Your task to perform on an android device: Search for razer kraken on bestbuy.com, select the first entry, and add it to the cart. Image 0: 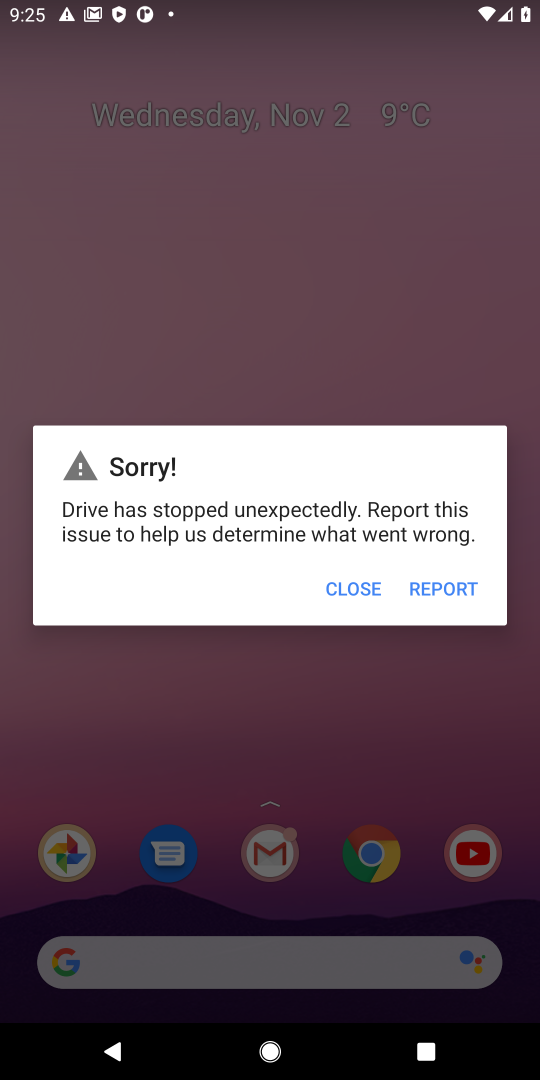
Step 0: press home button
Your task to perform on an android device: Search for razer kraken on bestbuy.com, select the first entry, and add it to the cart. Image 1: 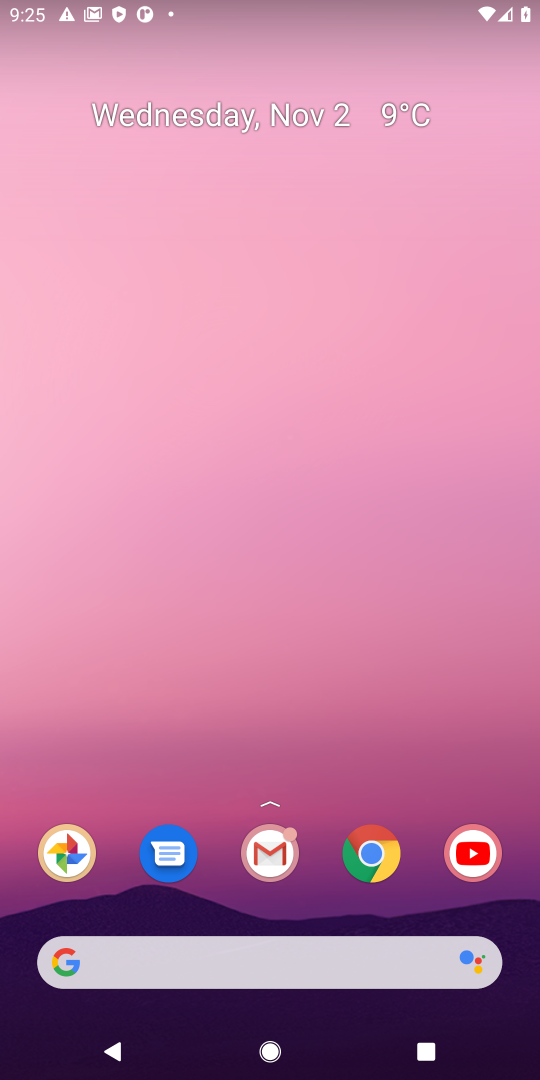
Step 1: click (366, 848)
Your task to perform on an android device: Search for razer kraken on bestbuy.com, select the first entry, and add it to the cart. Image 2: 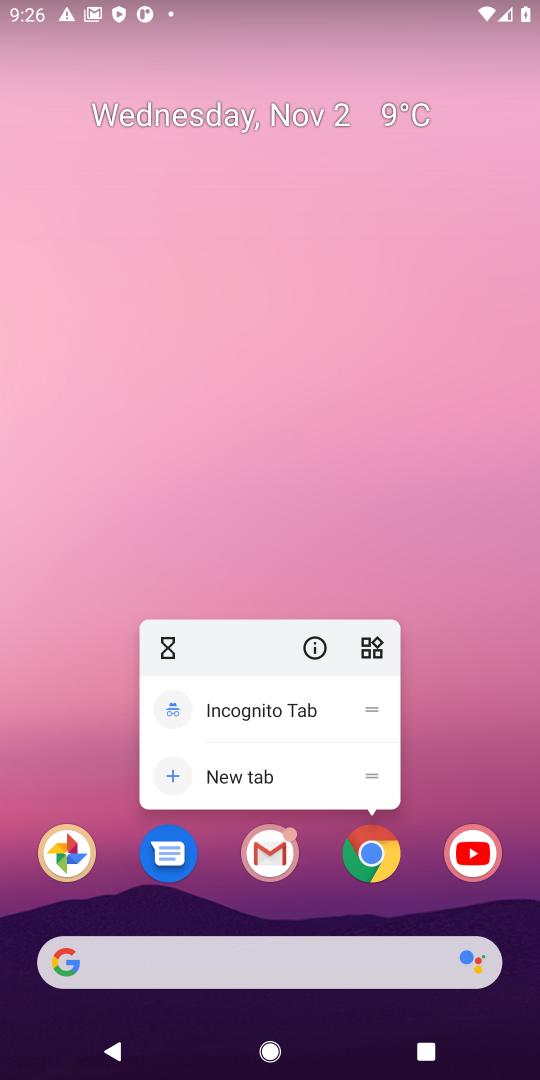
Step 2: click (369, 856)
Your task to perform on an android device: Search for razer kraken on bestbuy.com, select the first entry, and add it to the cart. Image 3: 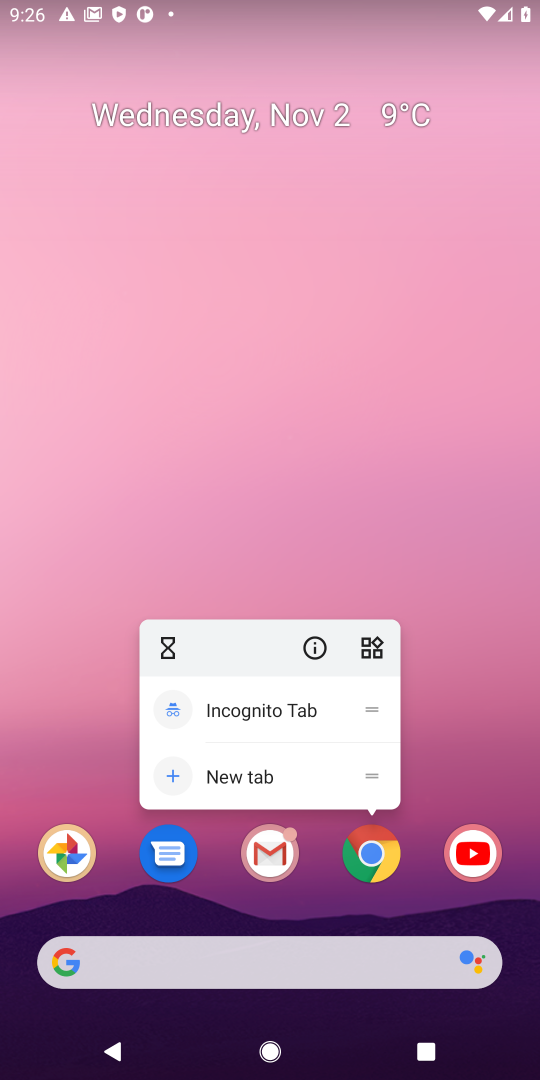
Step 3: click (375, 862)
Your task to perform on an android device: Search for razer kraken on bestbuy.com, select the first entry, and add it to the cart. Image 4: 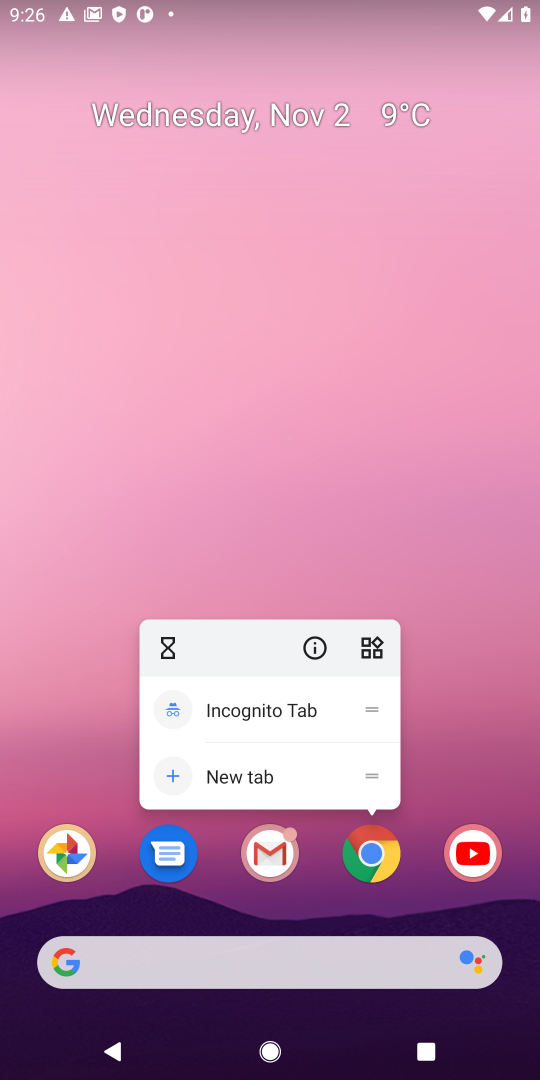
Step 4: click (375, 865)
Your task to perform on an android device: Search for razer kraken on bestbuy.com, select the first entry, and add it to the cart. Image 5: 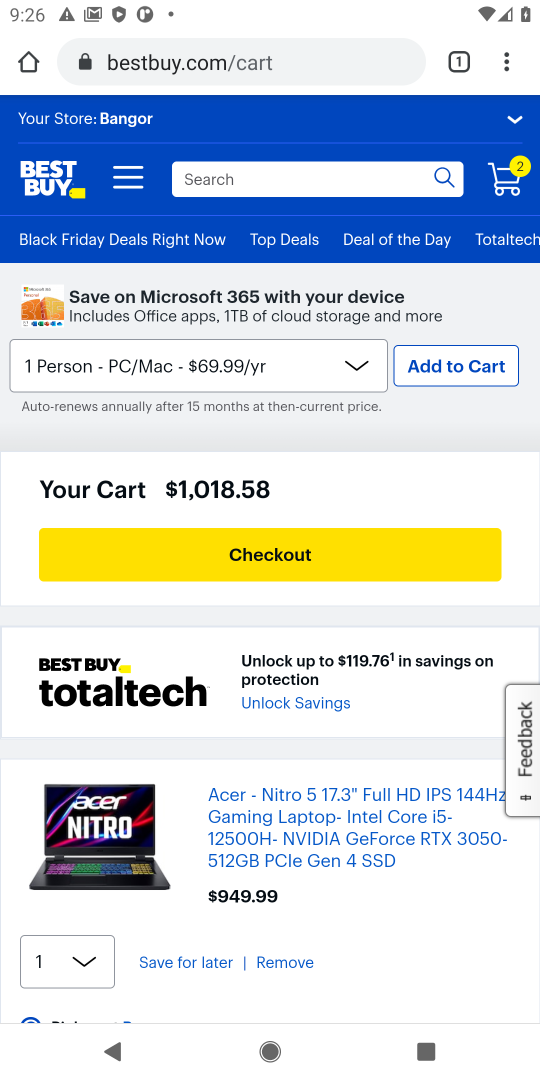
Step 5: click (289, 181)
Your task to perform on an android device: Search for razer kraken on bestbuy.com, select the first entry, and add it to the cart. Image 6: 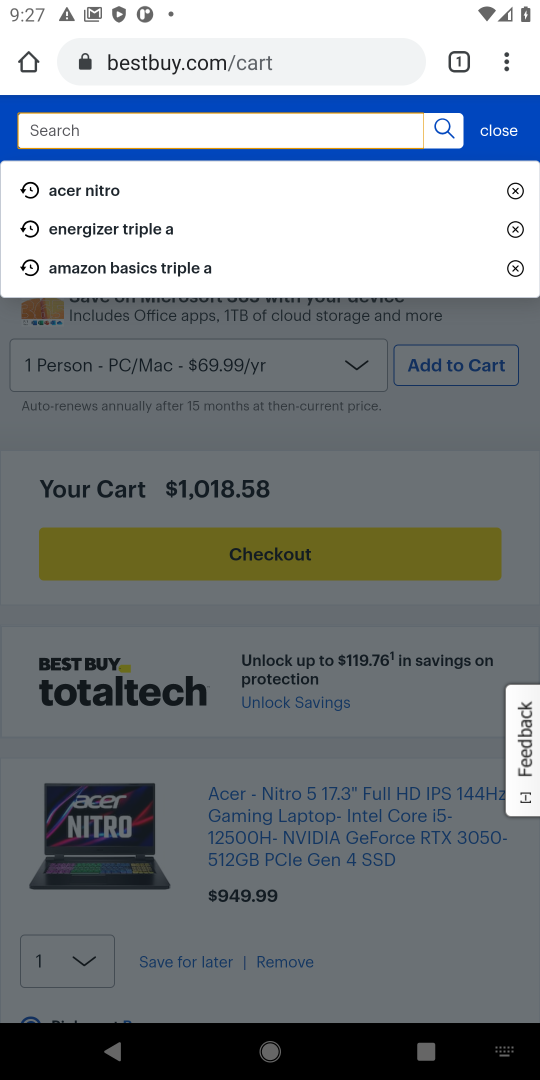
Step 6: type " razer kraken"
Your task to perform on an android device: Search for razer kraken on bestbuy.com, select the first entry, and add it to the cart. Image 7: 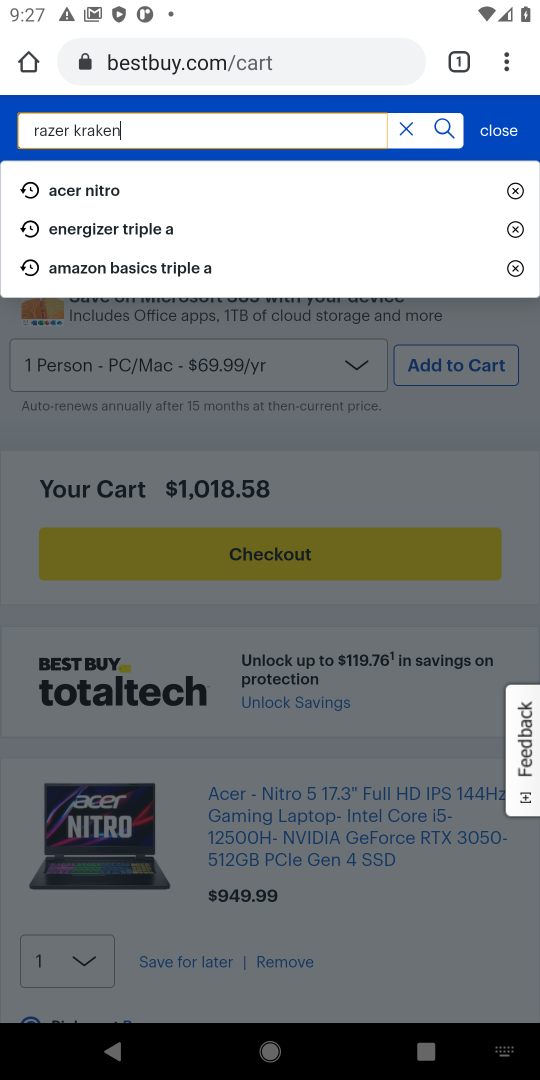
Step 7: press enter
Your task to perform on an android device: Search for razer kraken on bestbuy.com, select the first entry, and add it to the cart. Image 8: 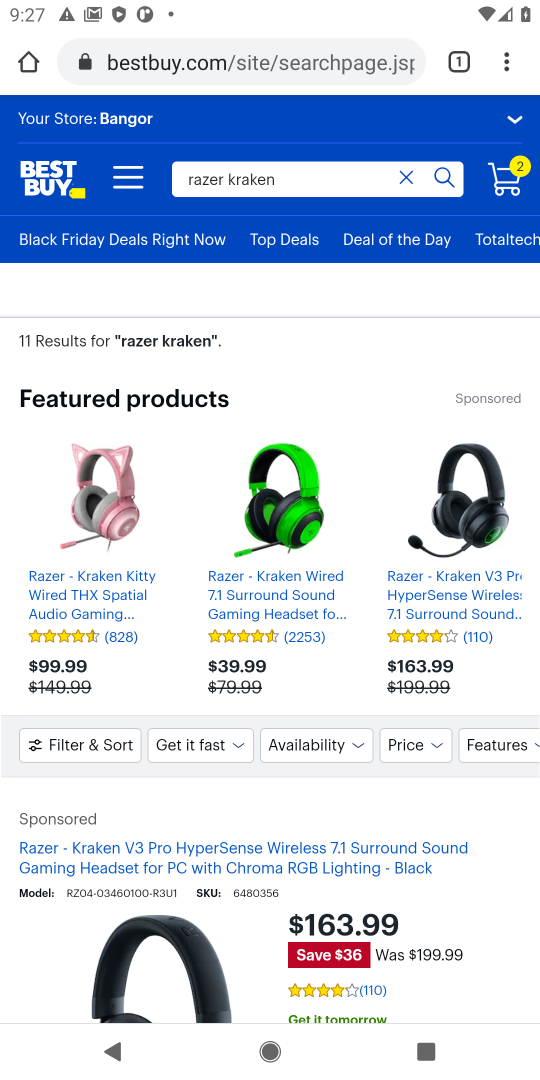
Step 8: drag from (227, 770) to (362, 395)
Your task to perform on an android device: Search for razer kraken on bestbuy.com, select the first entry, and add it to the cart. Image 9: 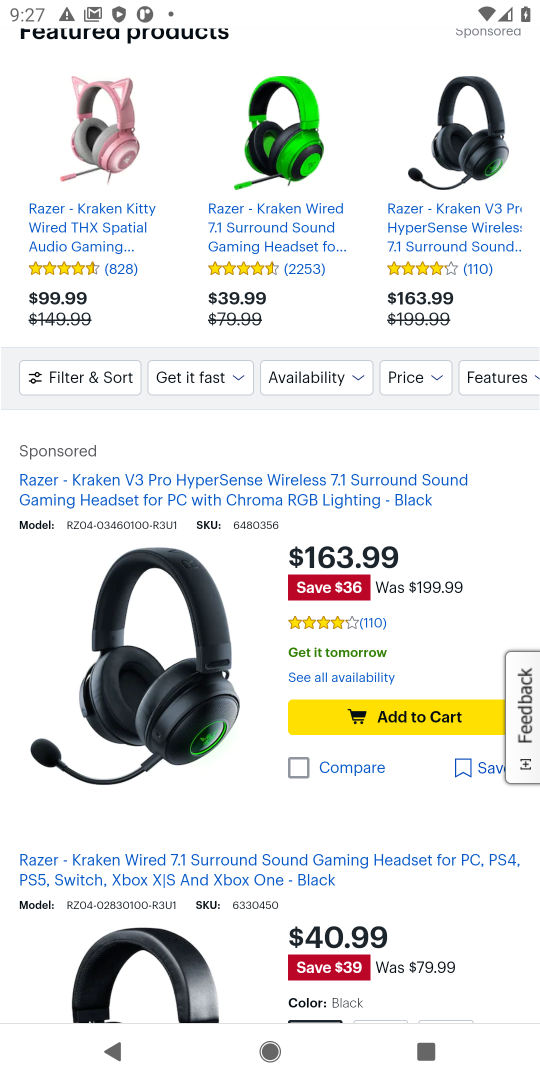
Step 9: click (429, 717)
Your task to perform on an android device: Search for razer kraken on bestbuy.com, select the first entry, and add it to the cart. Image 10: 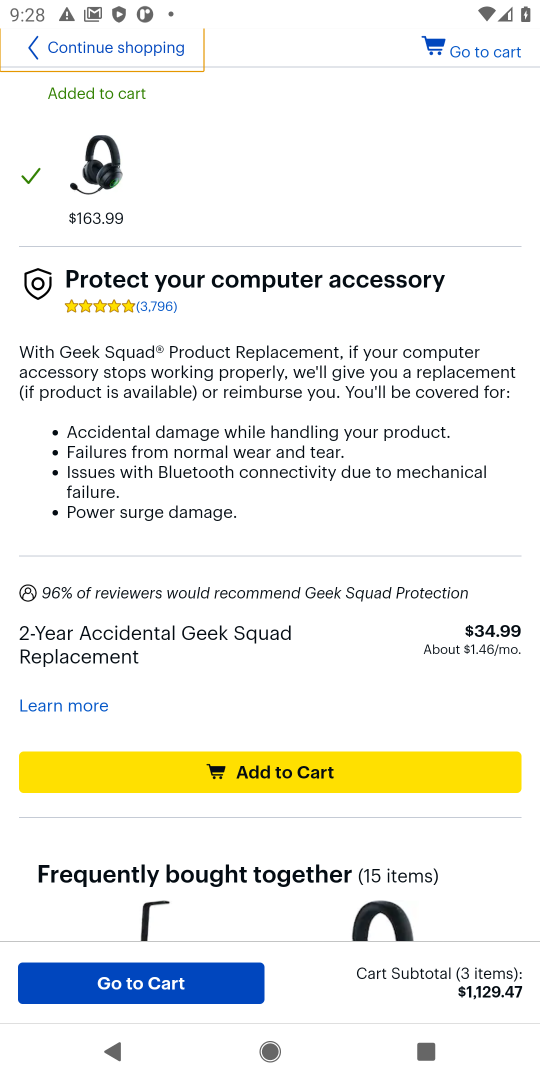
Step 10: task complete